Your task to perform on an android device: When is my next appointment? Image 0: 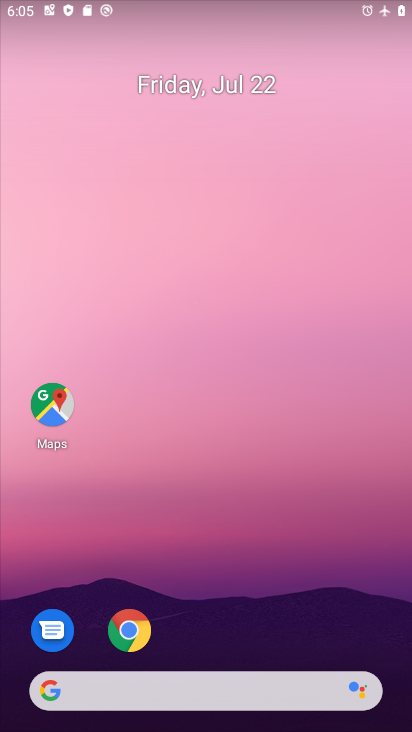
Step 0: drag from (157, 654) to (140, 86)
Your task to perform on an android device: When is my next appointment? Image 1: 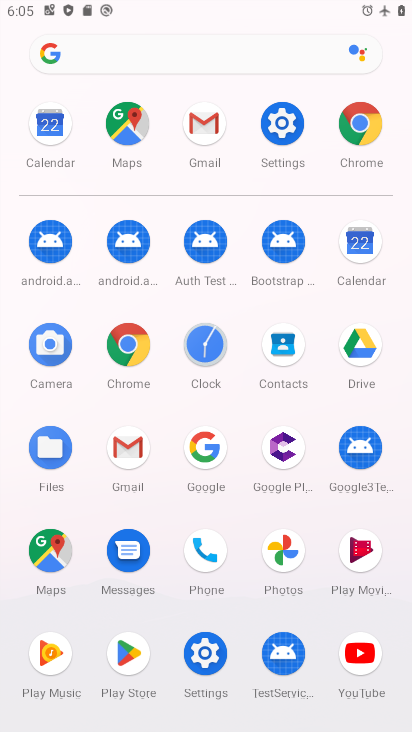
Step 1: click (370, 243)
Your task to perform on an android device: When is my next appointment? Image 2: 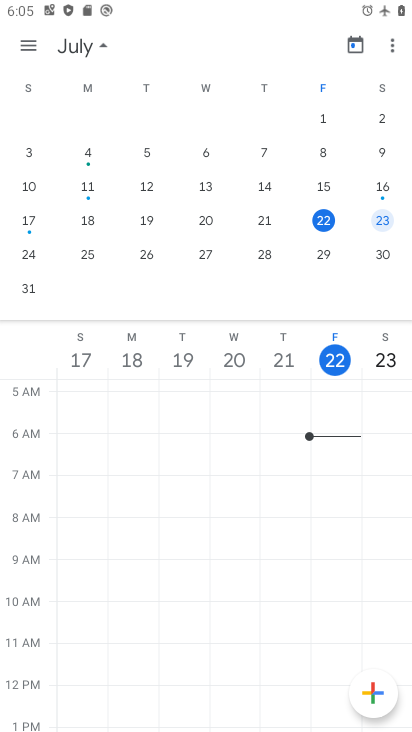
Step 2: click (384, 221)
Your task to perform on an android device: When is my next appointment? Image 3: 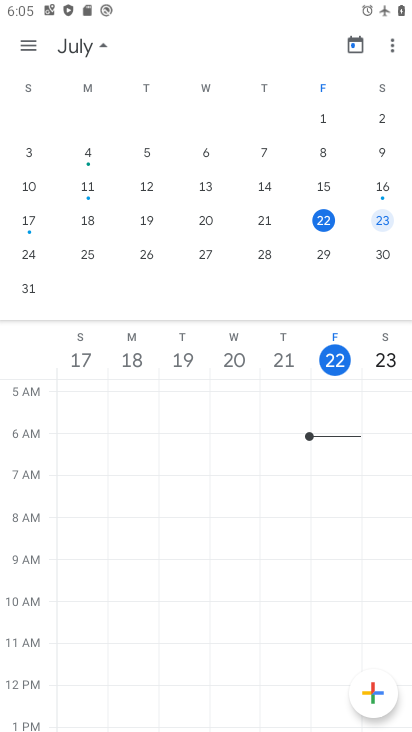
Step 3: task complete